Your task to perform on an android device: turn off wifi Image 0: 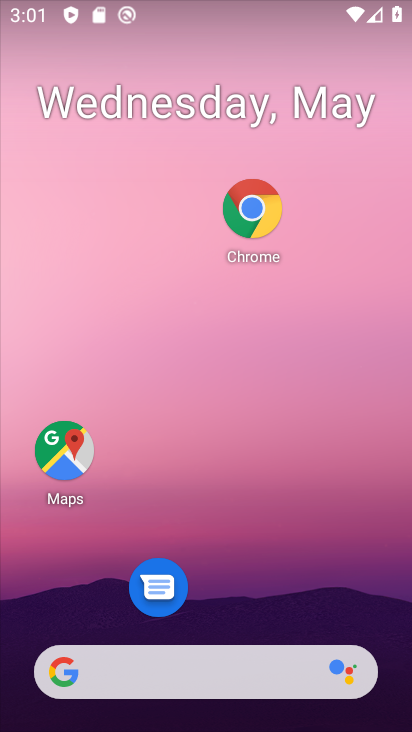
Step 0: drag from (264, 34) to (252, 476)
Your task to perform on an android device: turn off wifi Image 1: 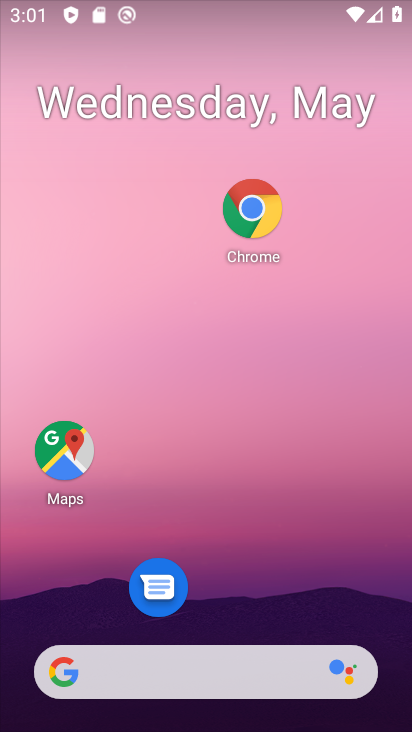
Step 1: drag from (175, 15) to (144, 549)
Your task to perform on an android device: turn off wifi Image 2: 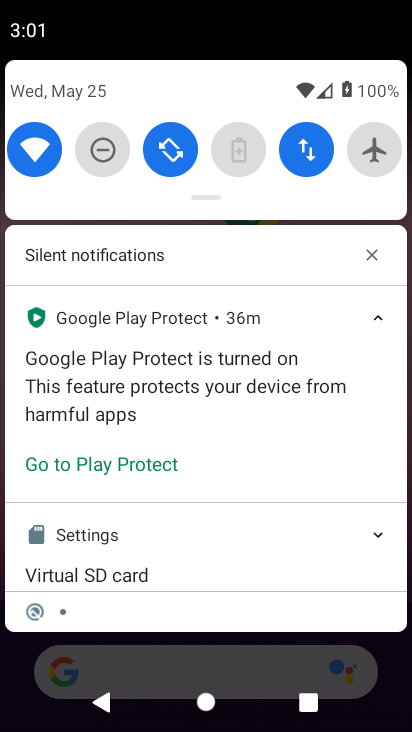
Step 2: click (41, 139)
Your task to perform on an android device: turn off wifi Image 3: 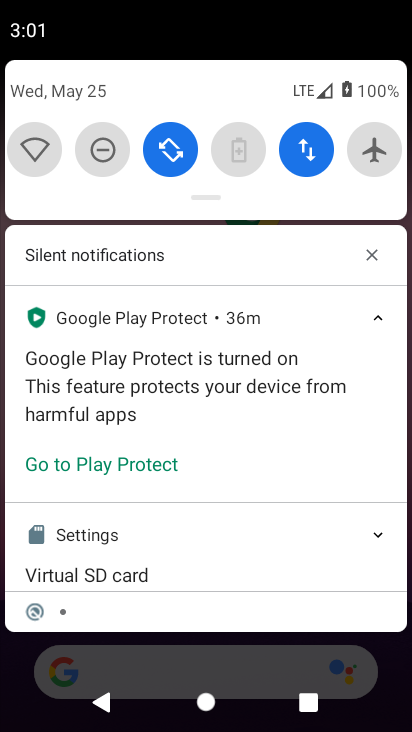
Step 3: task complete